Your task to perform on an android device: create a new album in the google photos Image 0: 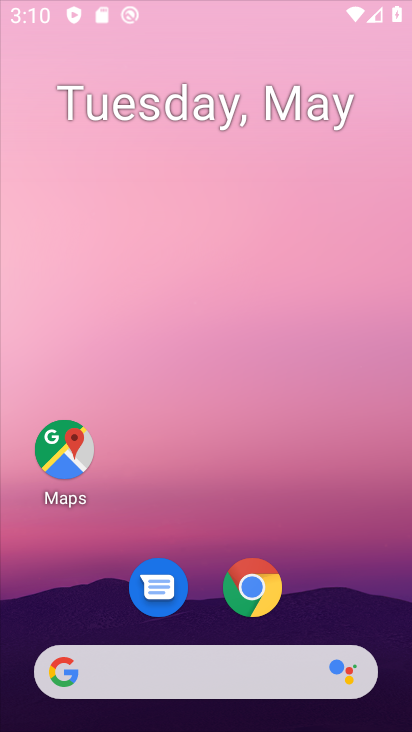
Step 0: drag from (399, 412) to (405, 229)
Your task to perform on an android device: create a new album in the google photos Image 1: 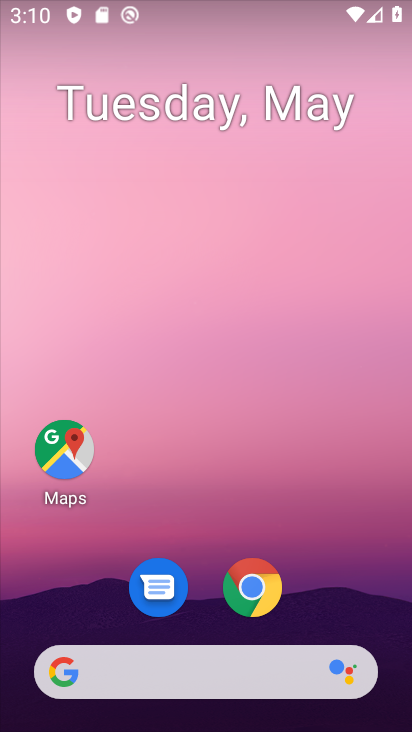
Step 1: drag from (232, 605) to (288, 237)
Your task to perform on an android device: create a new album in the google photos Image 2: 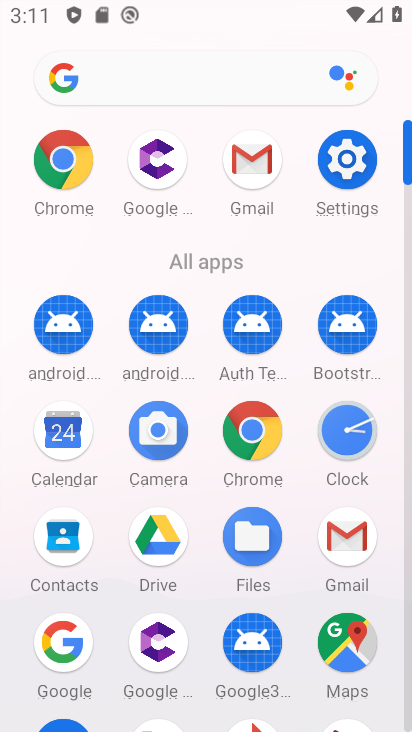
Step 2: drag from (206, 594) to (236, 285)
Your task to perform on an android device: create a new album in the google photos Image 3: 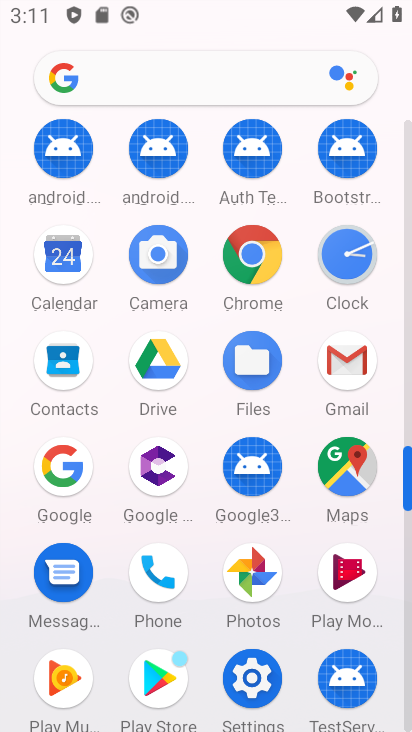
Step 3: click (247, 580)
Your task to perform on an android device: create a new album in the google photos Image 4: 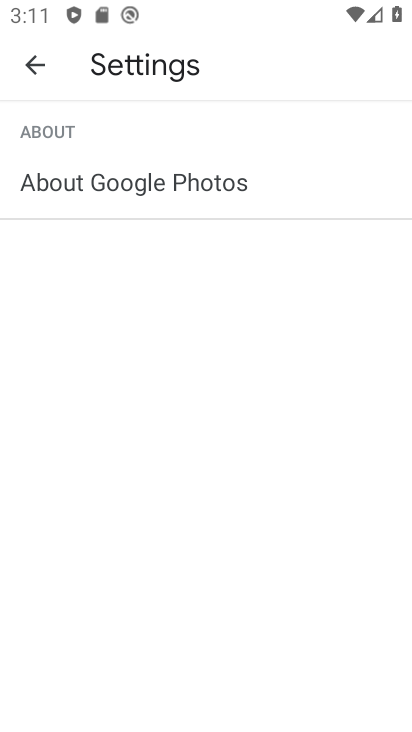
Step 4: click (48, 65)
Your task to perform on an android device: create a new album in the google photos Image 5: 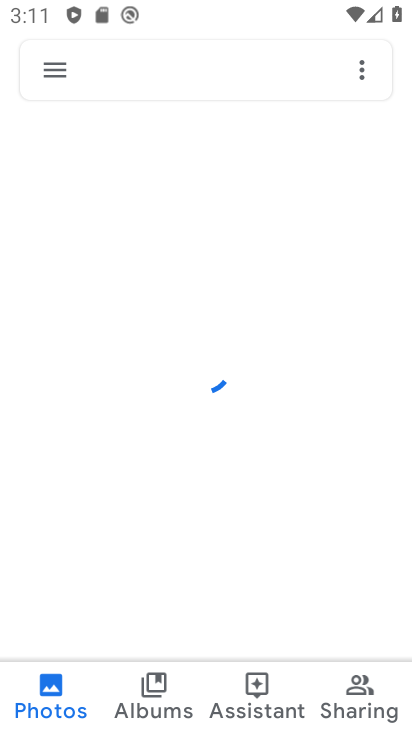
Step 5: click (142, 681)
Your task to perform on an android device: create a new album in the google photos Image 6: 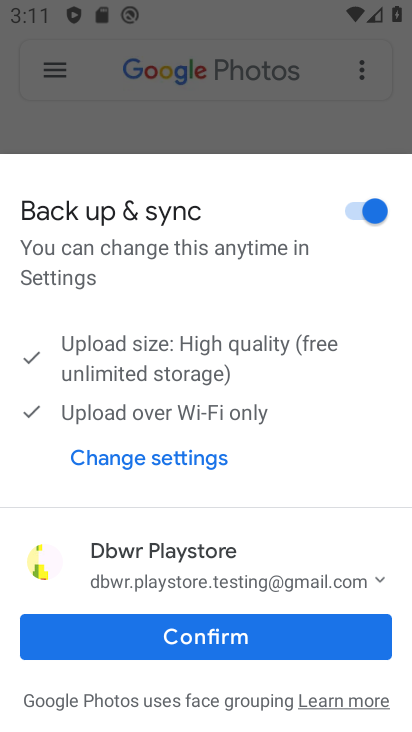
Step 6: click (132, 644)
Your task to perform on an android device: create a new album in the google photos Image 7: 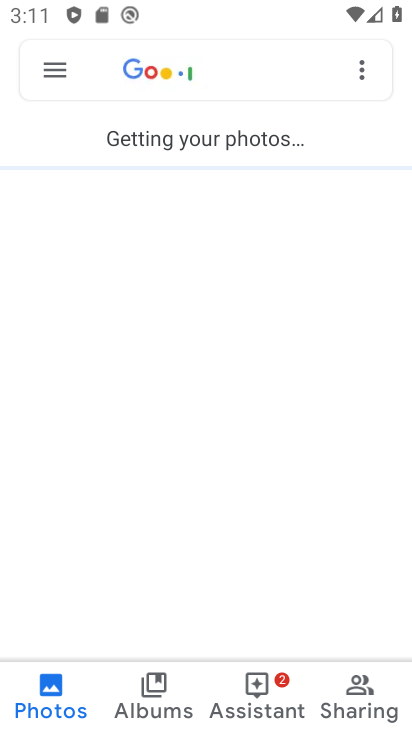
Step 7: click (67, 692)
Your task to perform on an android device: create a new album in the google photos Image 8: 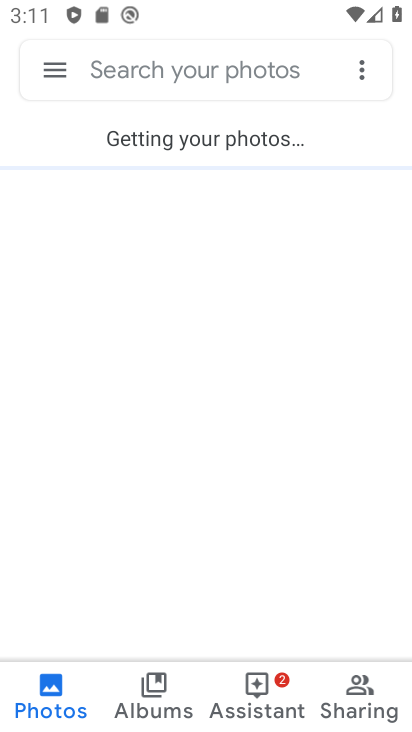
Step 8: task complete